Your task to perform on an android device: Open settings on Google Maps Image 0: 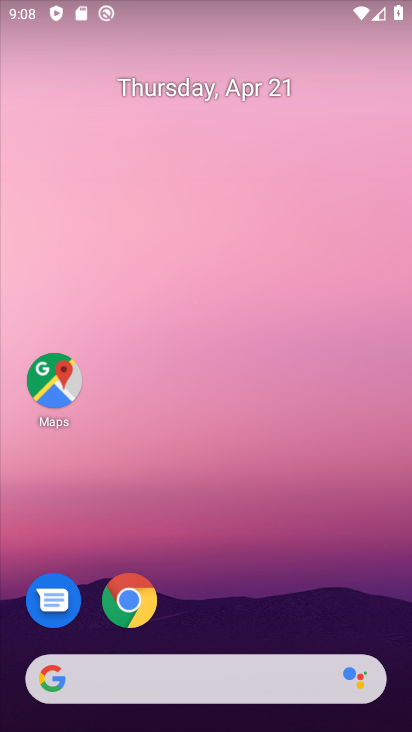
Step 0: click (51, 382)
Your task to perform on an android device: Open settings on Google Maps Image 1: 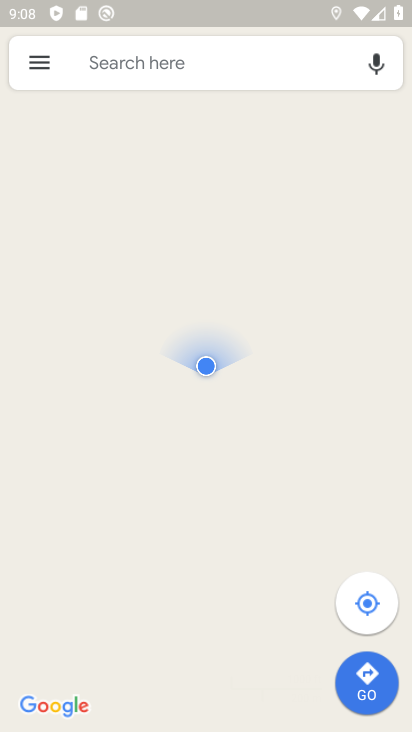
Step 1: click (34, 67)
Your task to perform on an android device: Open settings on Google Maps Image 2: 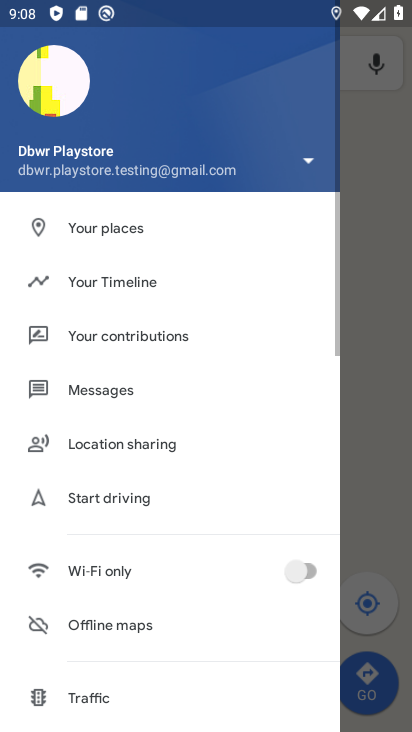
Step 2: drag from (243, 616) to (192, 235)
Your task to perform on an android device: Open settings on Google Maps Image 3: 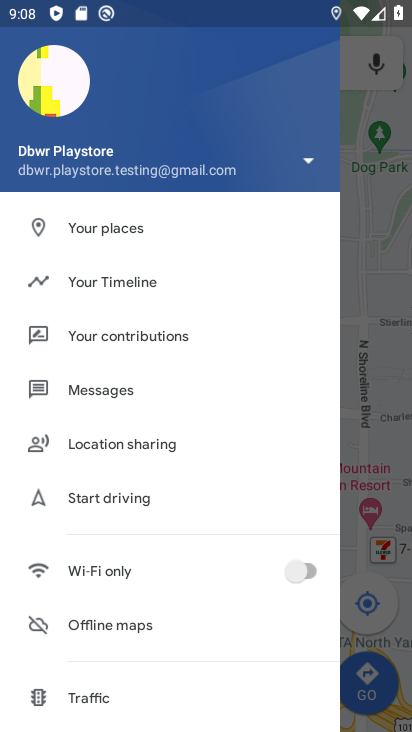
Step 3: drag from (178, 666) to (226, 3)
Your task to perform on an android device: Open settings on Google Maps Image 4: 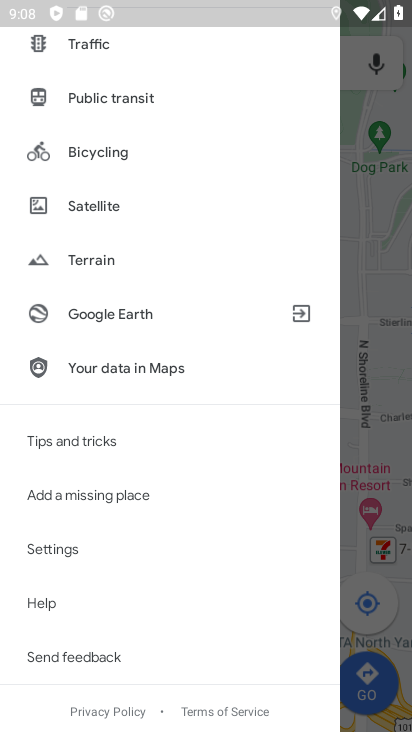
Step 4: click (69, 550)
Your task to perform on an android device: Open settings on Google Maps Image 5: 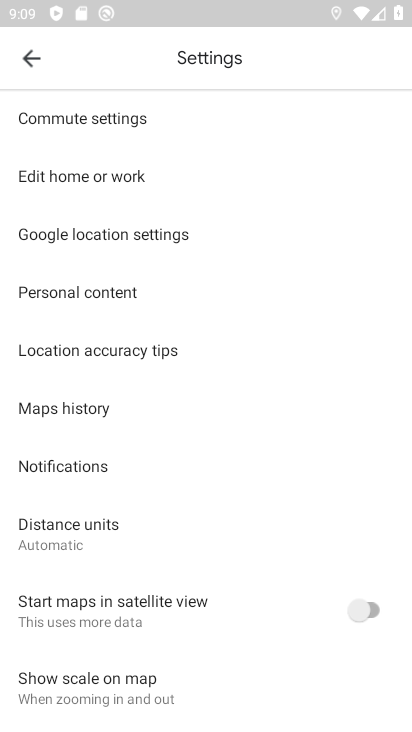
Step 5: task complete